Your task to perform on an android device: turn on data saver in the chrome app Image 0: 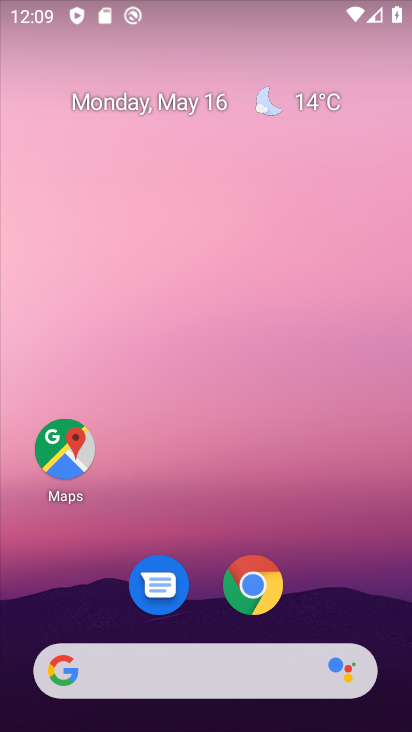
Step 0: click (251, 587)
Your task to perform on an android device: turn on data saver in the chrome app Image 1: 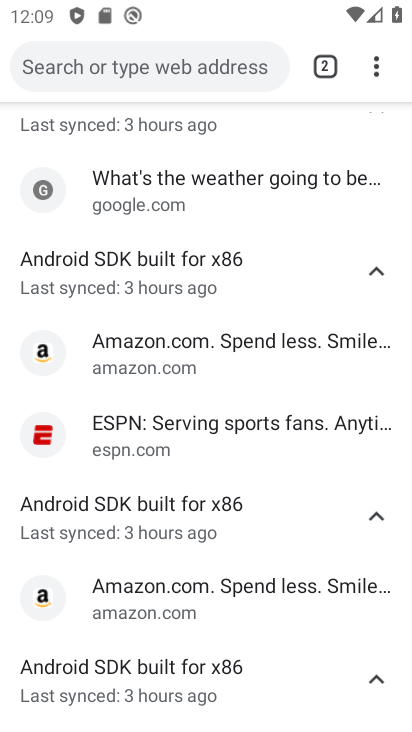
Step 1: click (375, 58)
Your task to perform on an android device: turn on data saver in the chrome app Image 2: 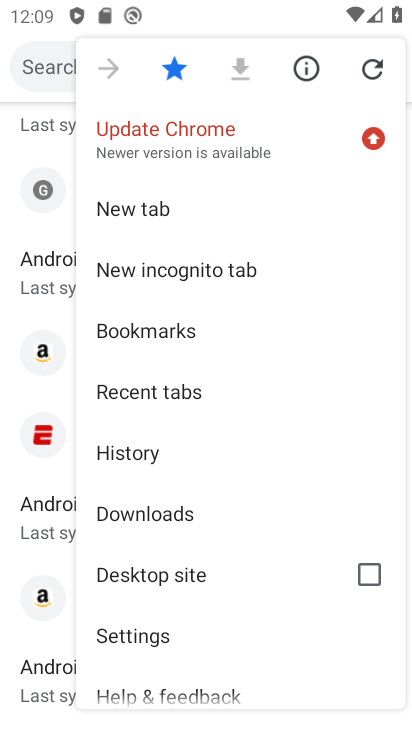
Step 2: click (187, 638)
Your task to perform on an android device: turn on data saver in the chrome app Image 3: 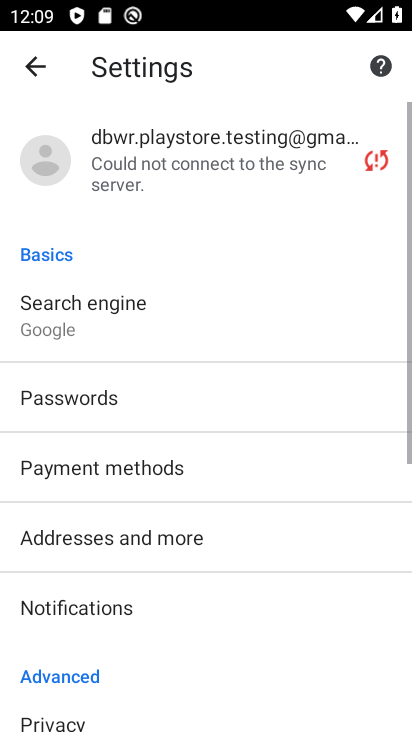
Step 3: drag from (186, 632) to (247, 382)
Your task to perform on an android device: turn on data saver in the chrome app Image 4: 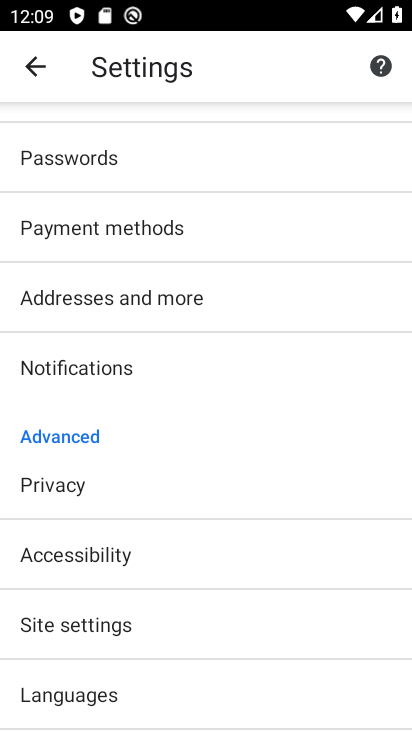
Step 4: drag from (216, 561) to (256, 328)
Your task to perform on an android device: turn on data saver in the chrome app Image 5: 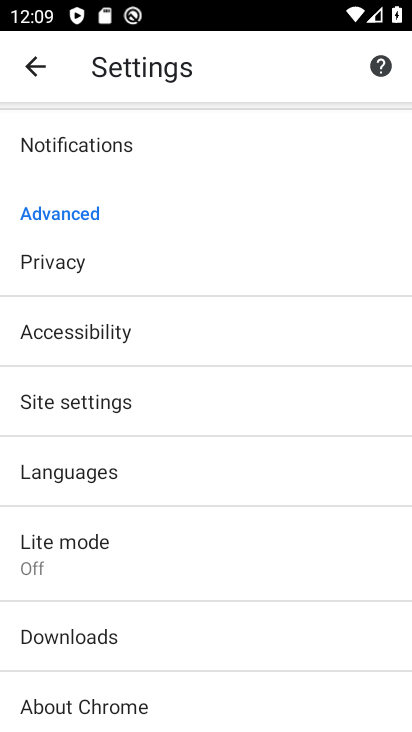
Step 5: click (175, 562)
Your task to perform on an android device: turn on data saver in the chrome app Image 6: 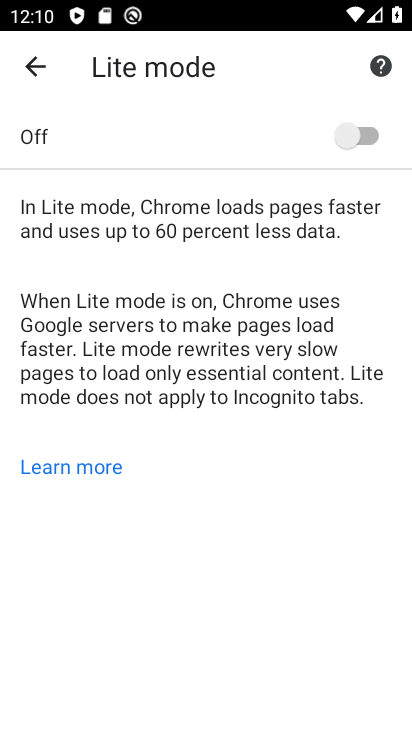
Step 6: click (354, 129)
Your task to perform on an android device: turn on data saver in the chrome app Image 7: 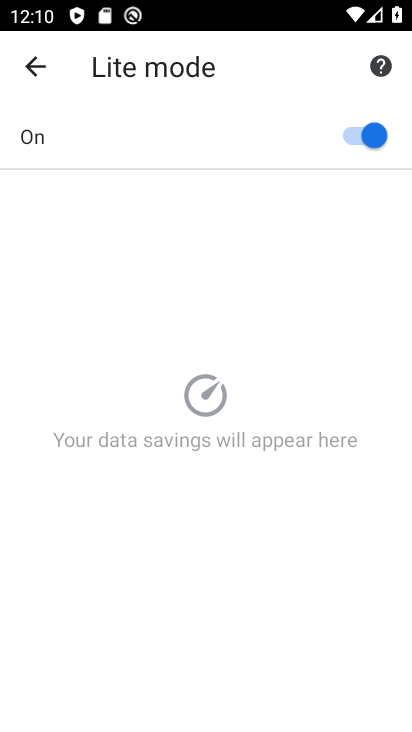
Step 7: task complete